Your task to perform on an android device: snooze an email in the gmail app Image 0: 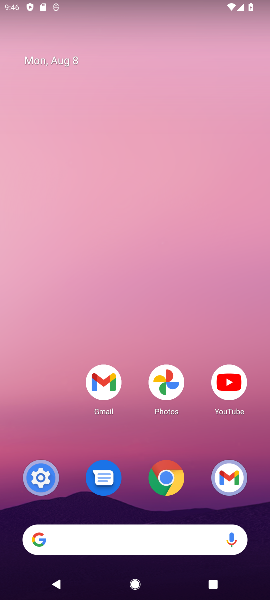
Step 0: drag from (166, 520) to (128, 108)
Your task to perform on an android device: snooze an email in the gmail app Image 1: 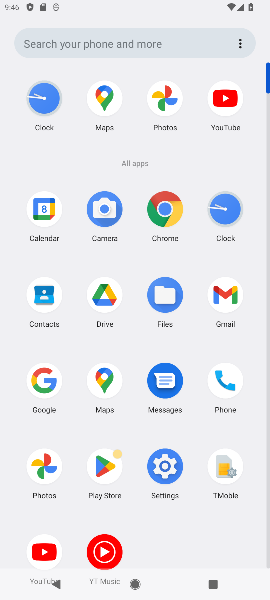
Step 1: click (174, 480)
Your task to perform on an android device: snooze an email in the gmail app Image 2: 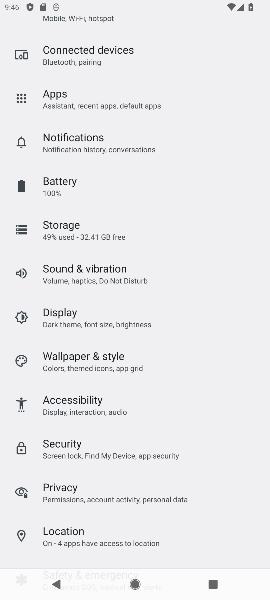
Step 2: click (76, 316)
Your task to perform on an android device: snooze an email in the gmail app Image 3: 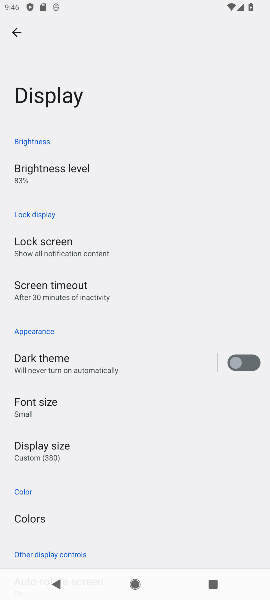
Step 3: task complete